Your task to perform on an android device: set an alarm Image 0: 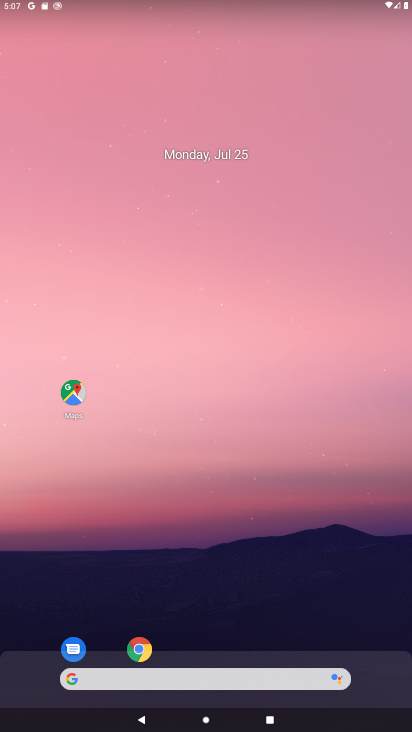
Step 0: drag from (238, 703) to (246, 174)
Your task to perform on an android device: set an alarm Image 1: 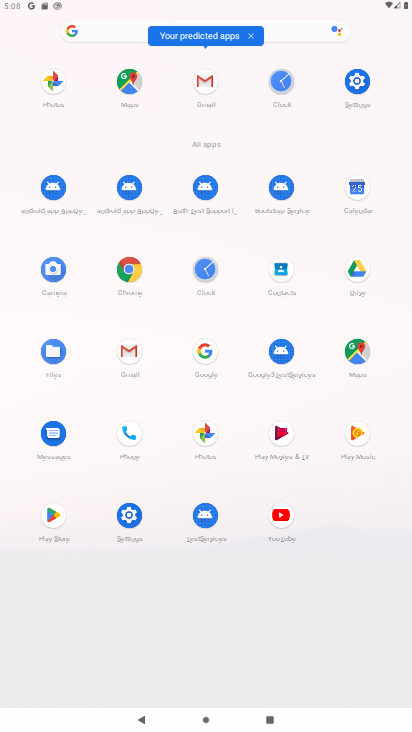
Step 1: click (205, 269)
Your task to perform on an android device: set an alarm Image 2: 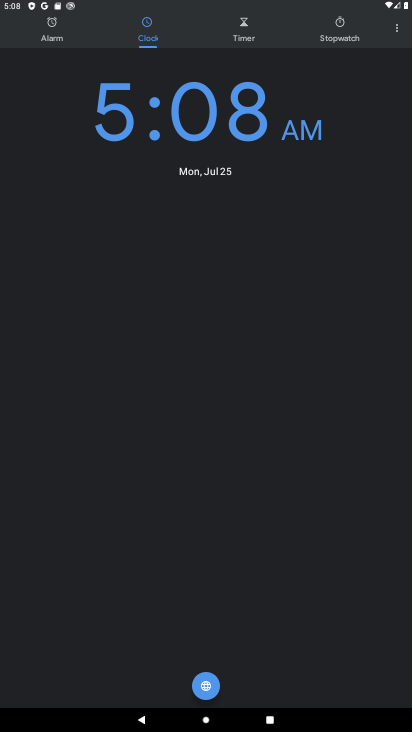
Step 2: click (56, 41)
Your task to perform on an android device: set an alarm Image 3: 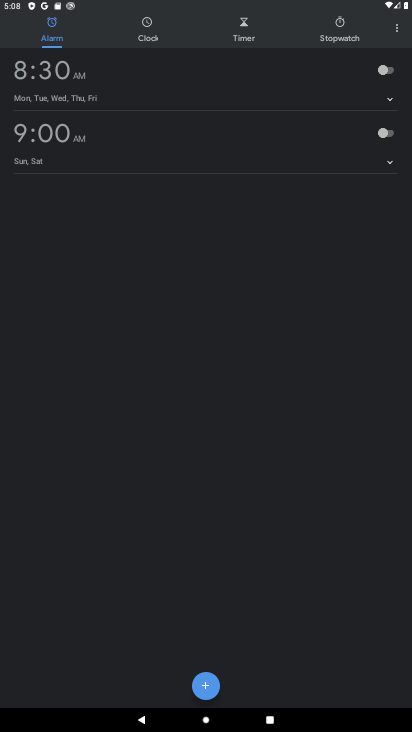
Step 3: click (381, 136)
Your task to perform on an android device: set an alarm Image 4: 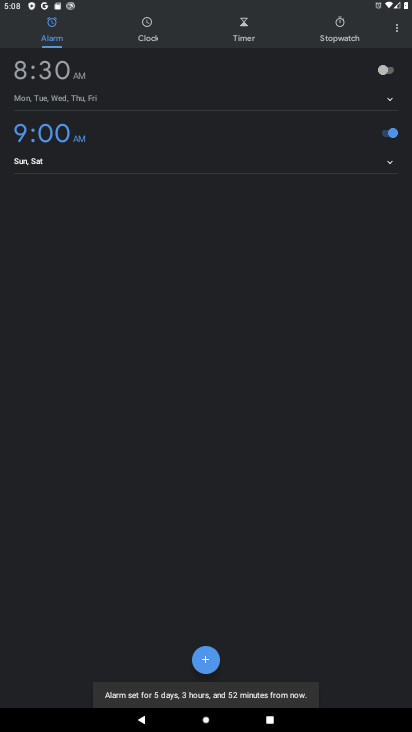
Step 4: task complete